Your task to perform on an android device: Open the camera Image 0: 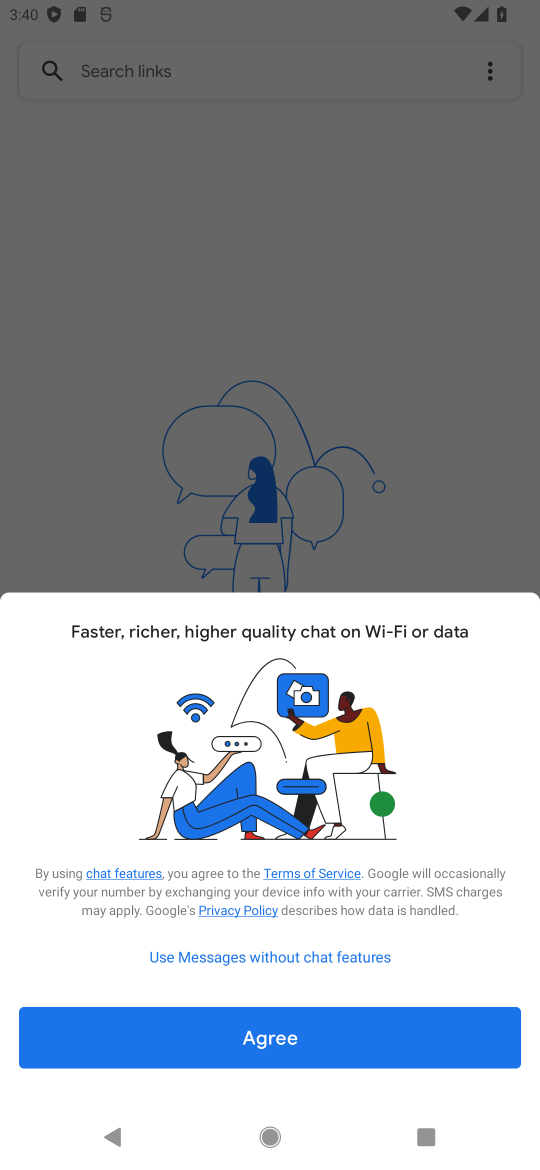
Step 0: press home button
Your task to perform on an android device: Open the camera Image 1: 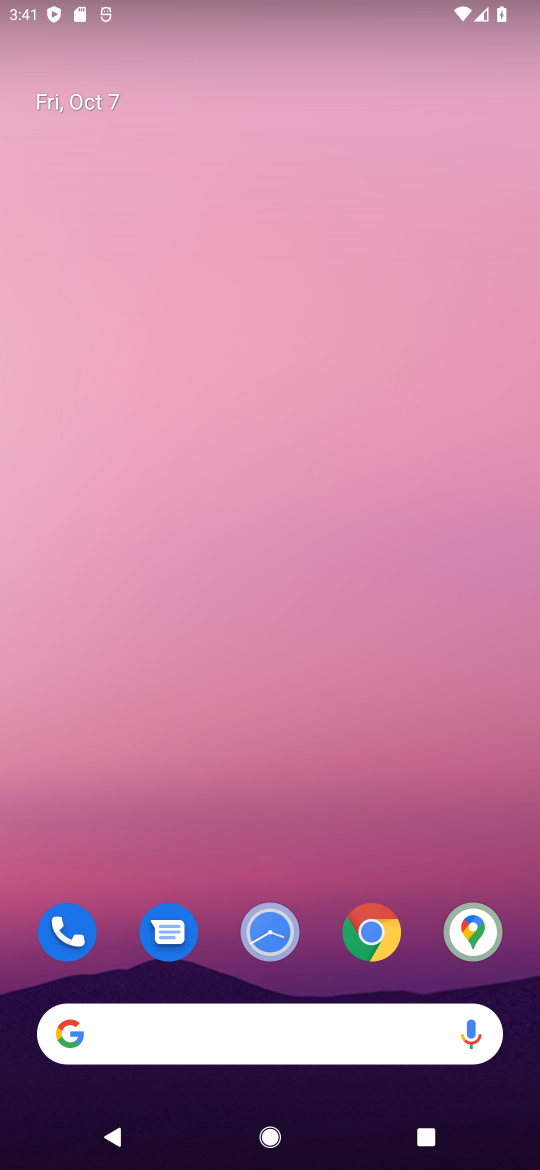
Step 1: drag from (274, 1006) to (307, 395)
Your task to perform on an android device: Open the camera Image 2: 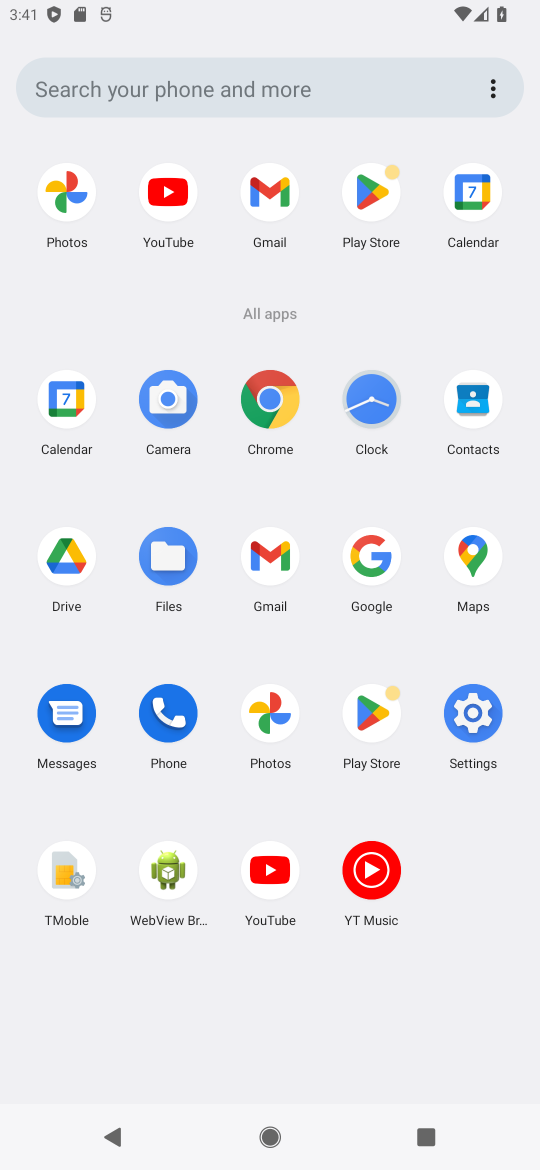
Step 2: click (186, 427)
Your task to perform on an android device: Open the camera Image 3: 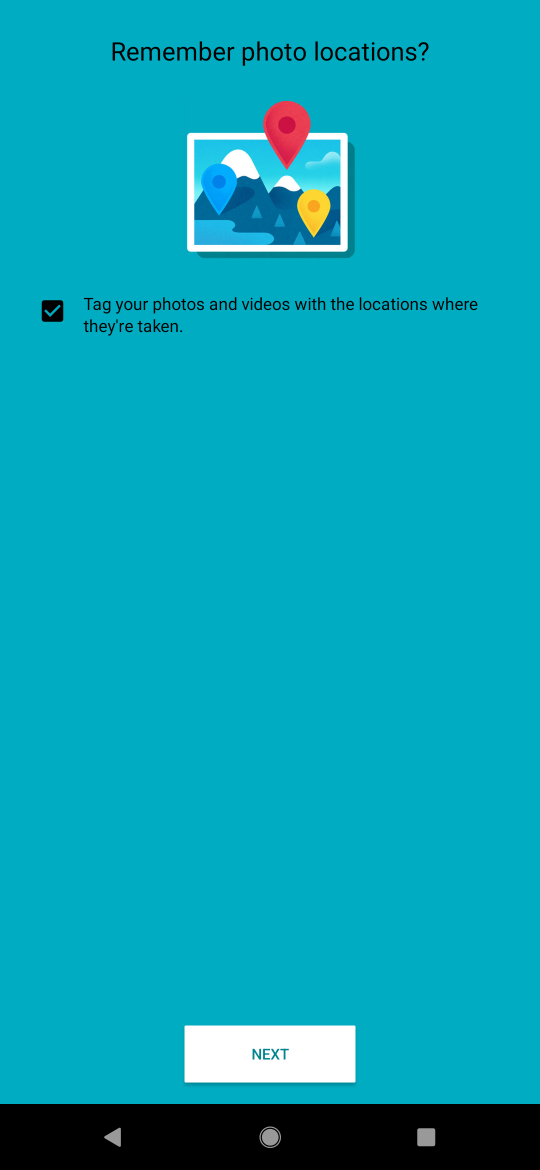
Step 3: click (288, 1055)
Your task to perform on an android device: Open the camera Image 4: 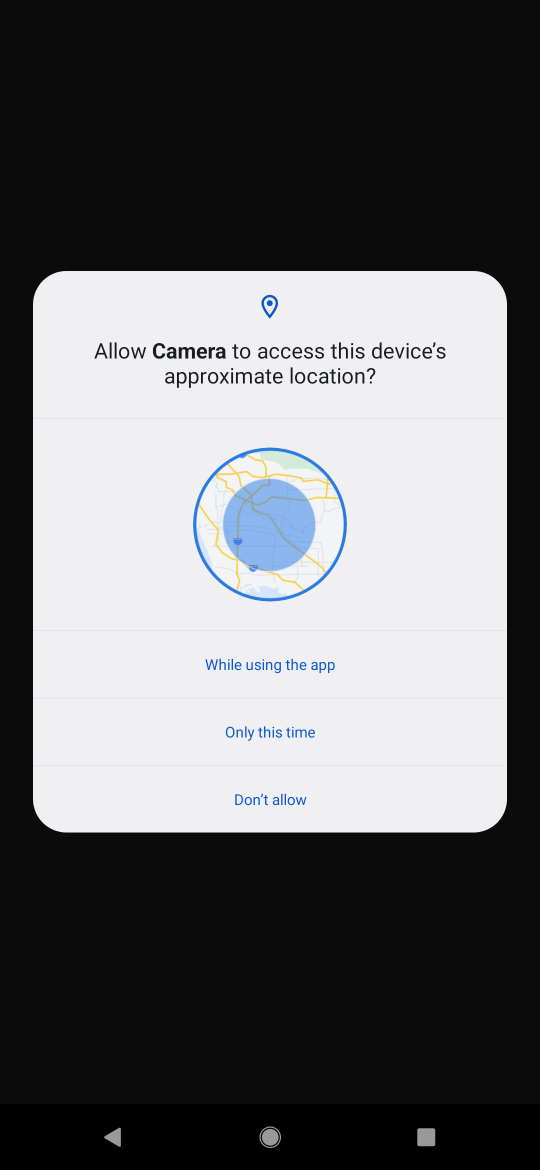
Step 4: click (252, 657)
Your task to perform on an android device: Open the camera Image 5: 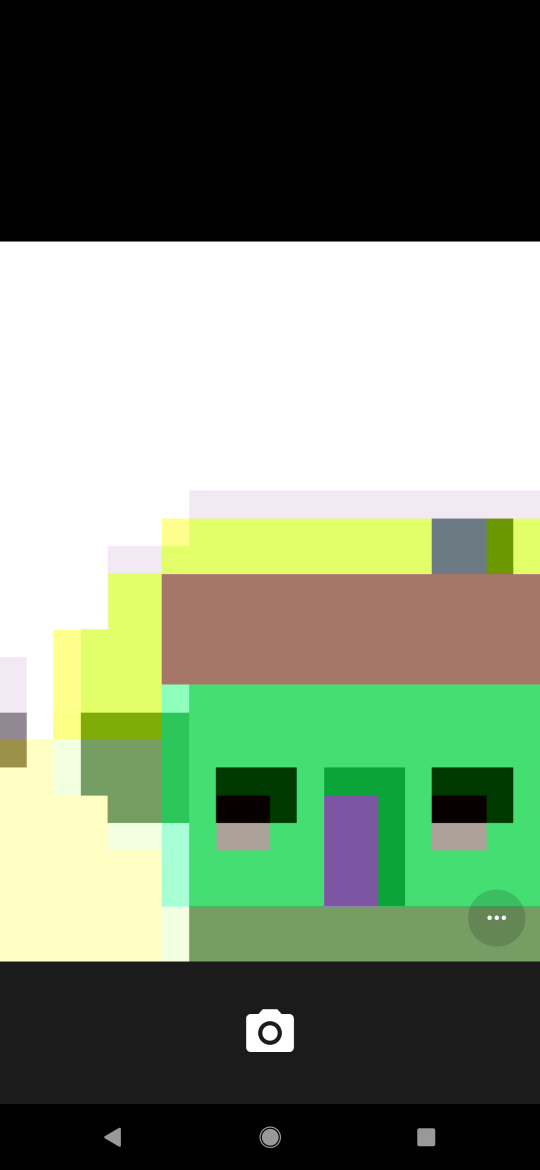
Step 5: task complete